Your task to perform on an android device: What is the news today? Image 0: 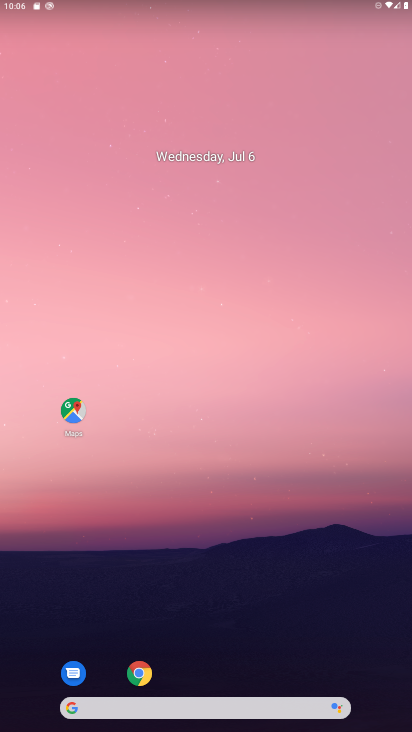
Step 0: click (147, 711)
Your task to perform on an android device: What is the news today? Image 1: 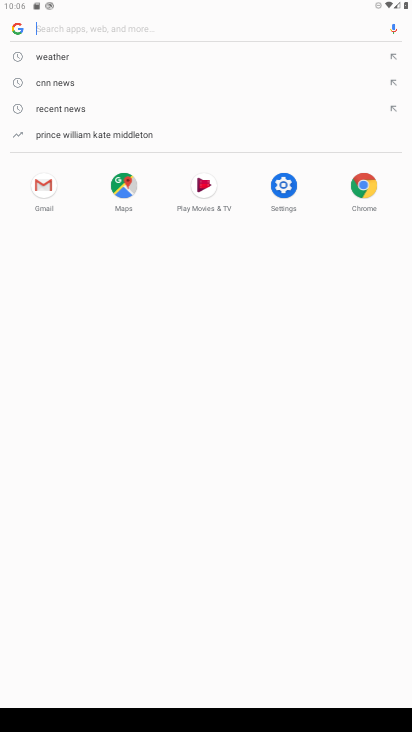
Step 1: click (88, 116)
Your task to perform on an android device: What is the news today? Image 2: 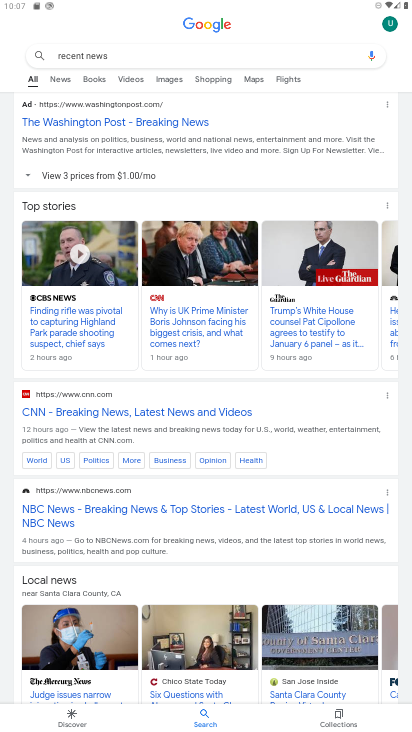
Step 2: click (61, 85)
Your task to perform on an android device: What is the news today? Image 3: 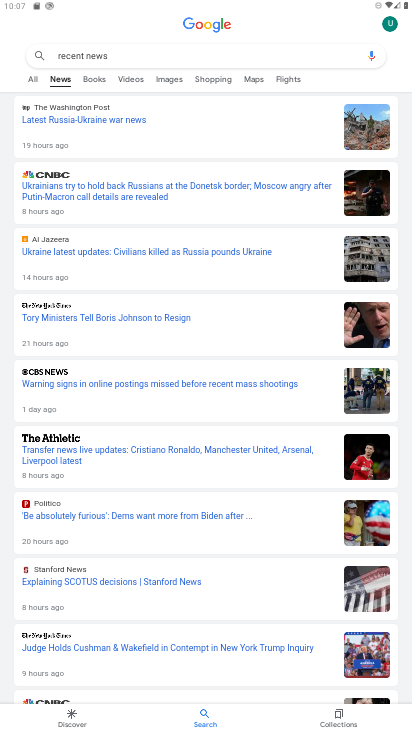
Step 3: task complete